Your task to perform on an android device: open app "Truecaller" Image 0: 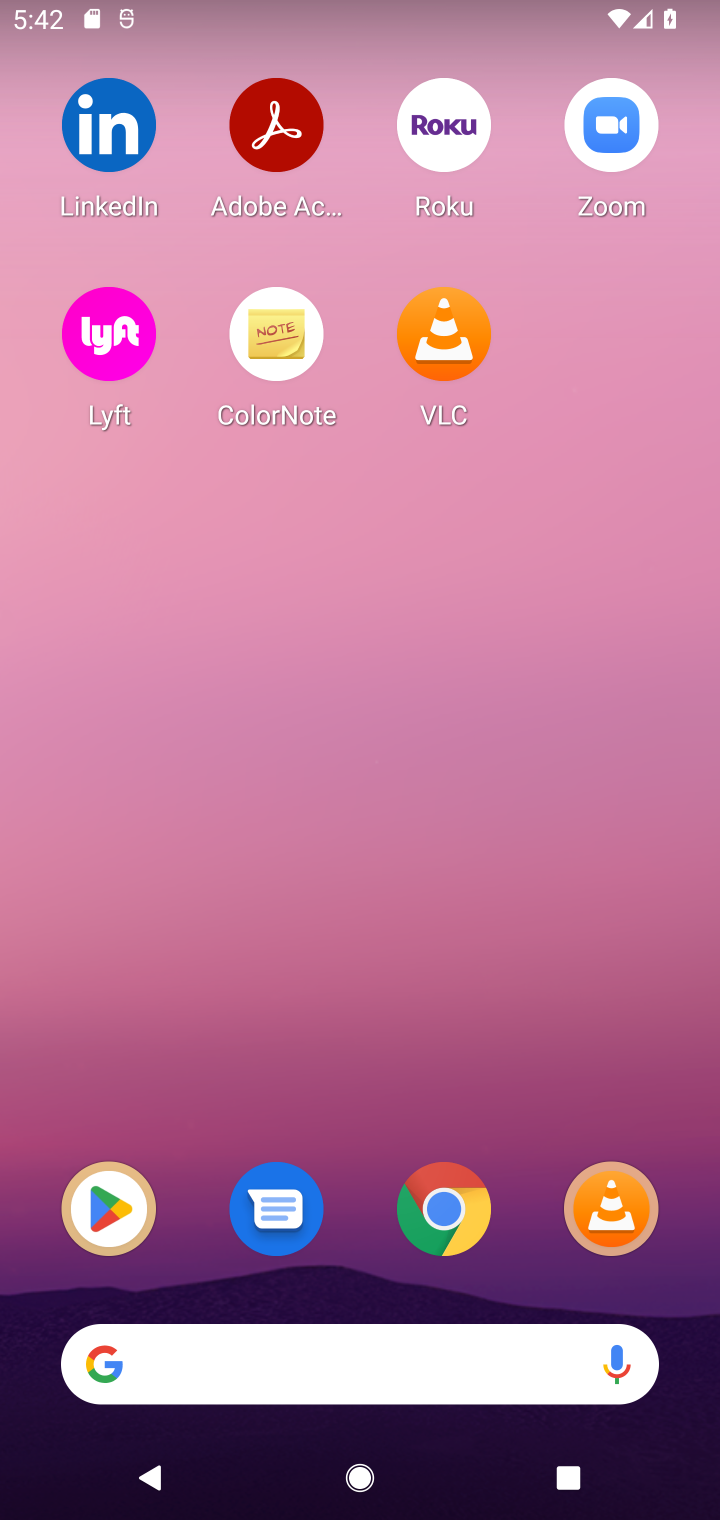
Step 0: click (89, 1229)
Your task to perform on an android device: open app "Truecaller" Image 1: 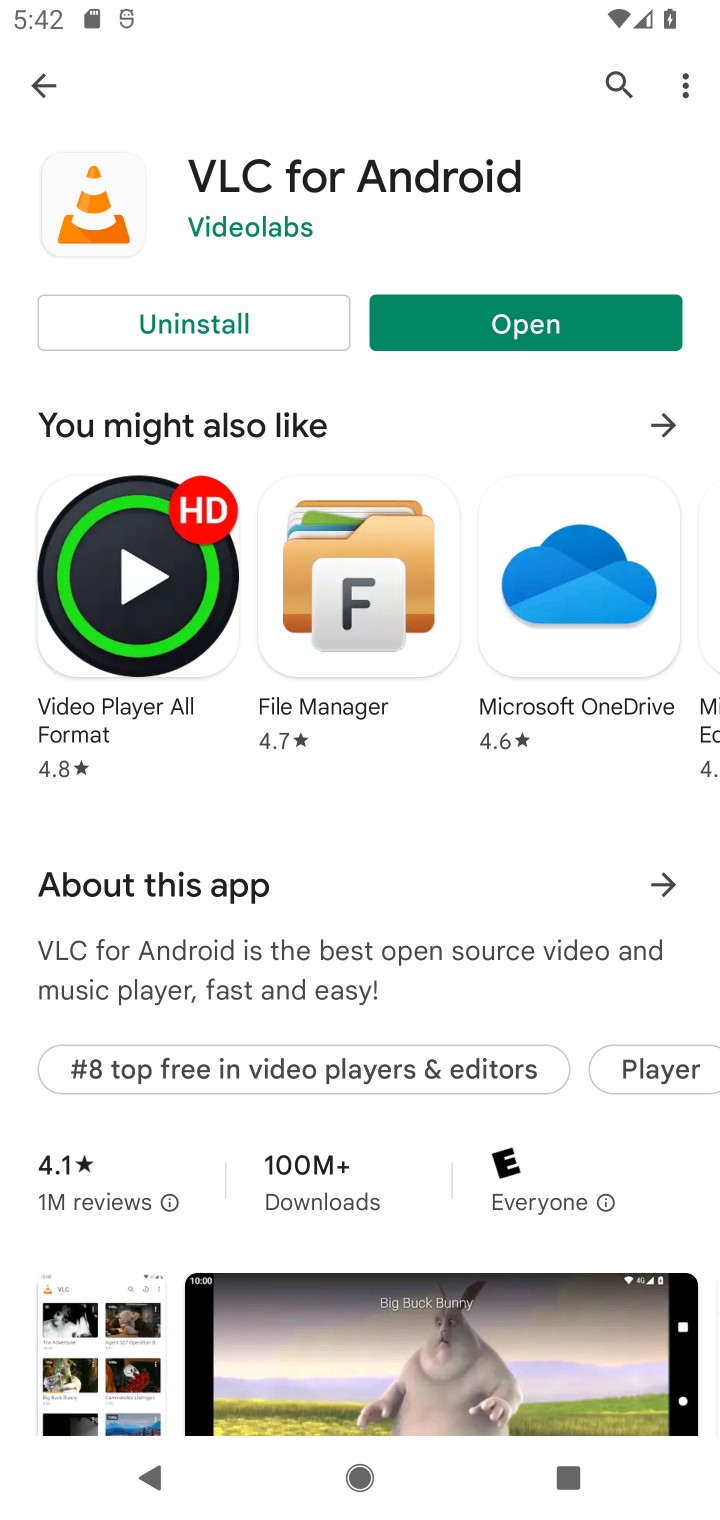
Step 1: click (619, 94)
Your task to perform on an android device: open app "Truecaller" Image 2: 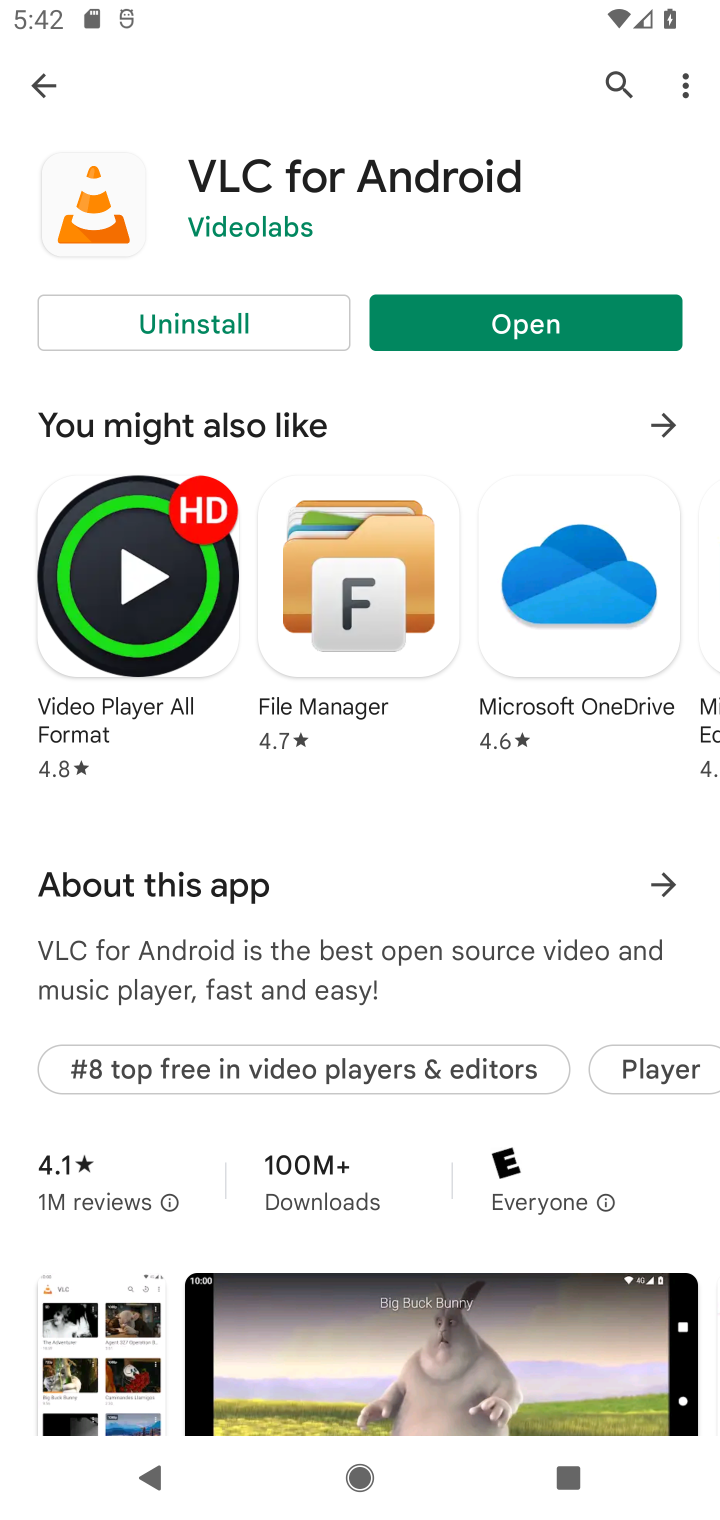
Step 2: click (616, 82)
Your task to perform on an android device: open app "Truecaller" Image 3: 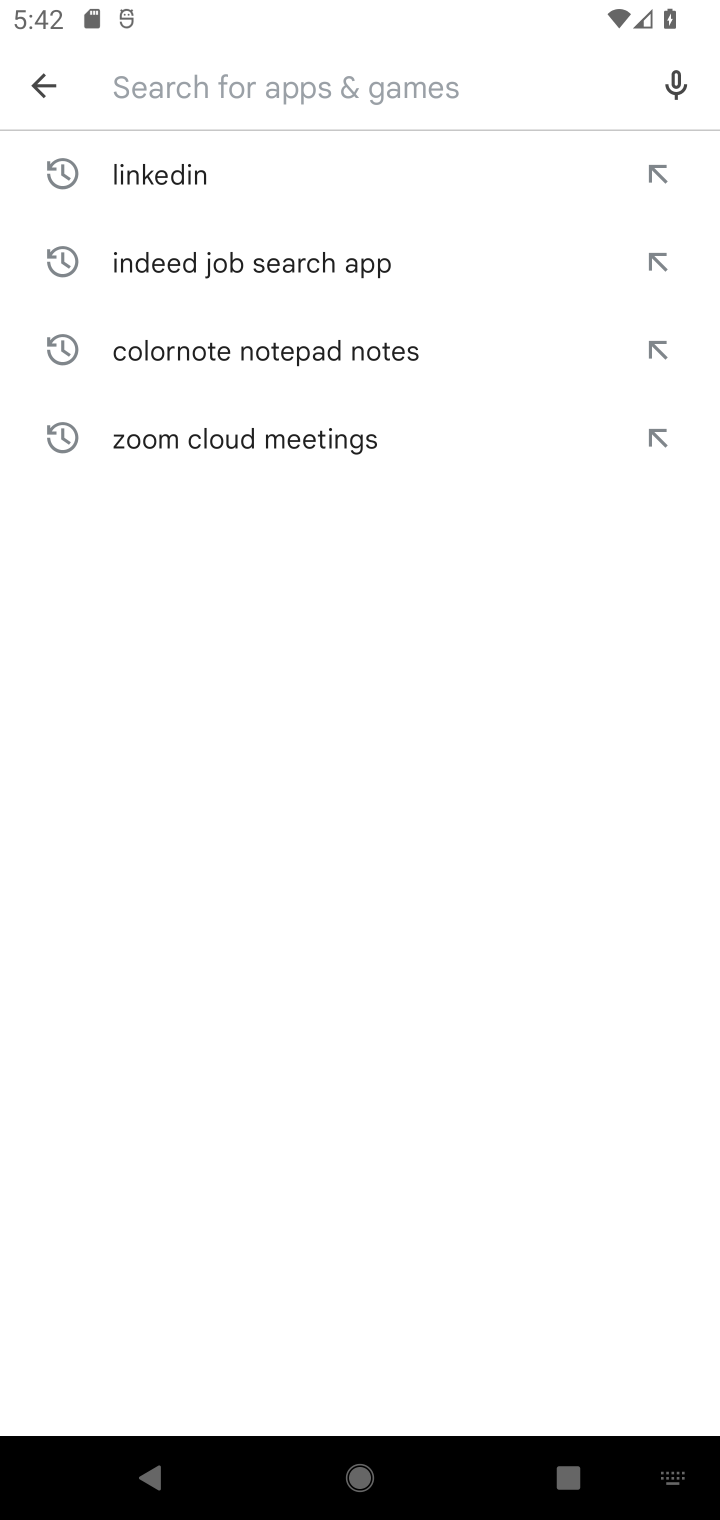
Step 3: type "Truecaller"
Your task to perform on an android device: open app "Truecaller" Image 4: 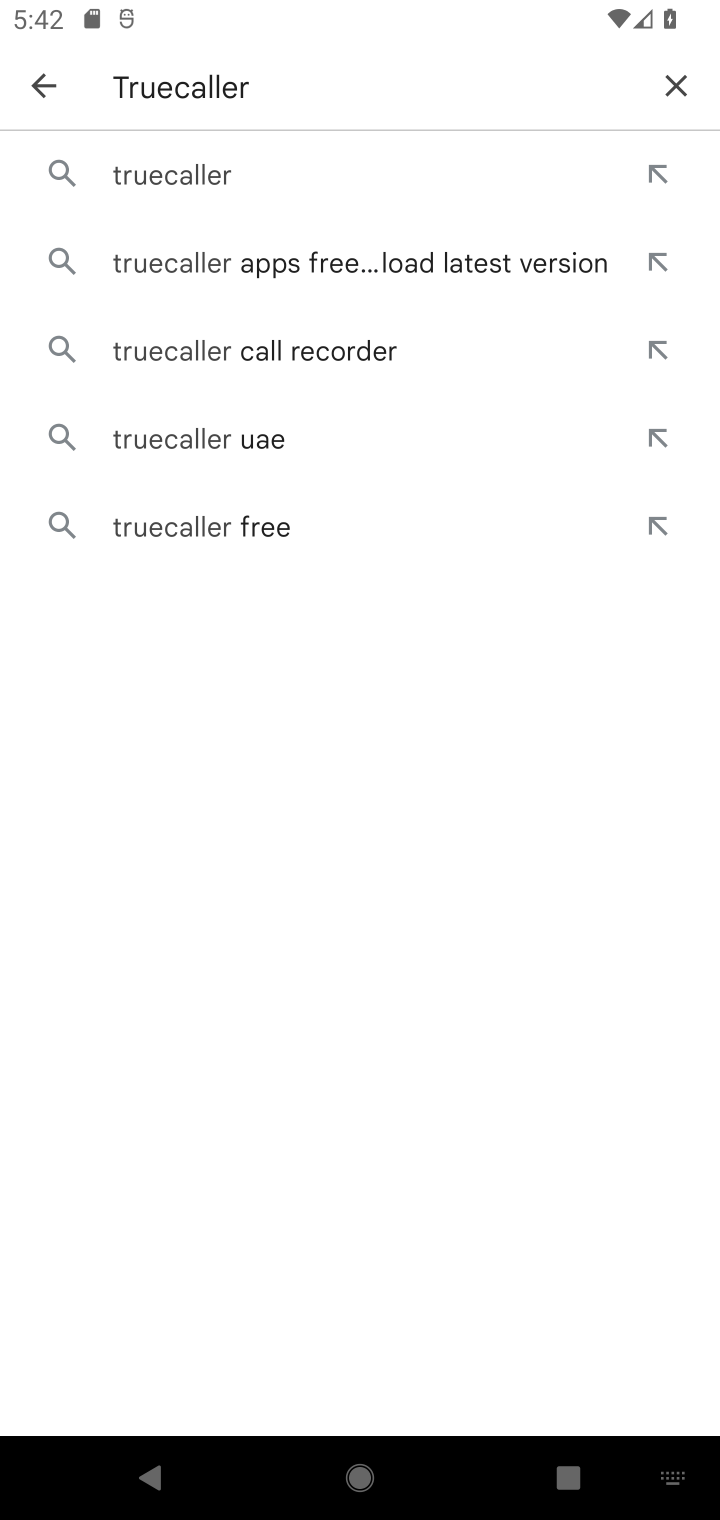
Step 4: click (152, 178)
Your task to perform on an android device: open app "Truecaller" Image 5: 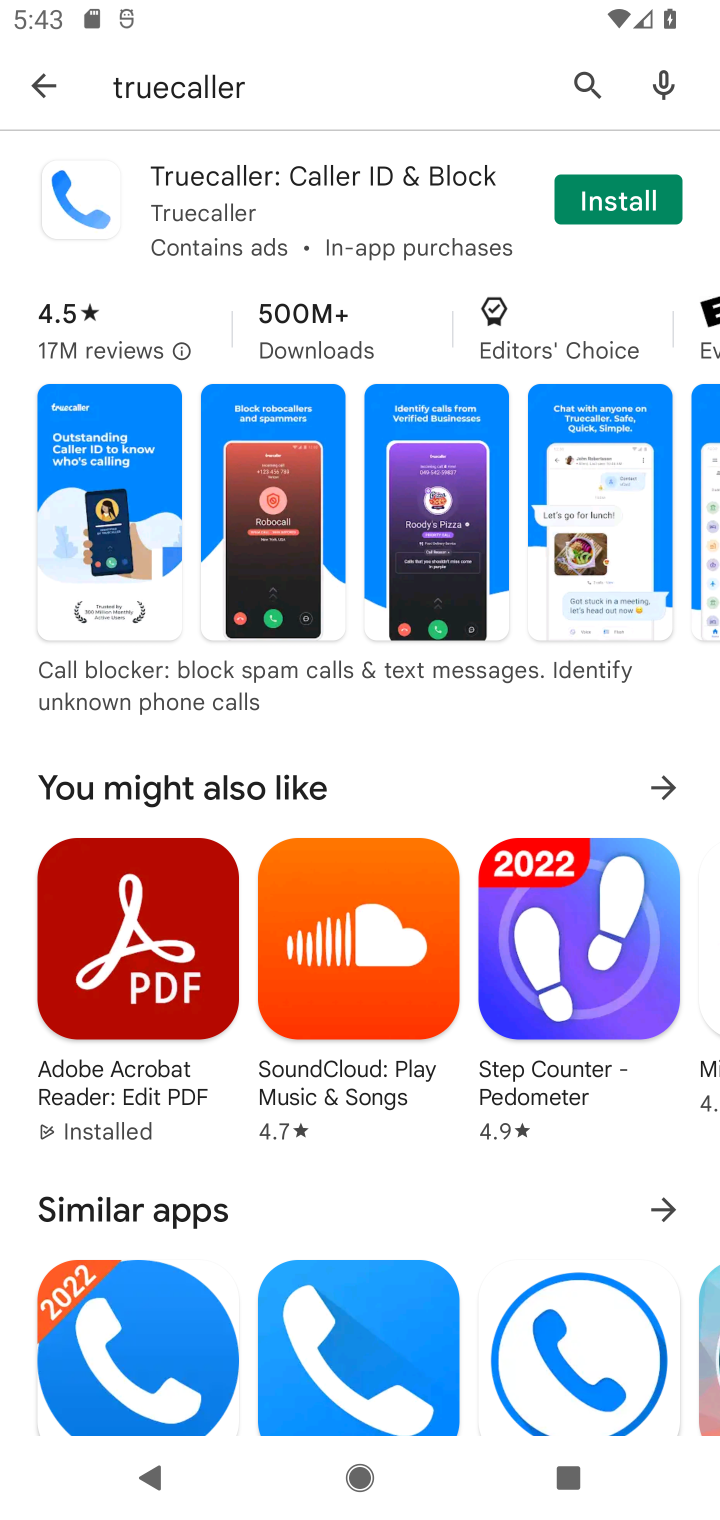
Step 5: task complete